Your task to perform on an android device: Open wifi settings Image 0: 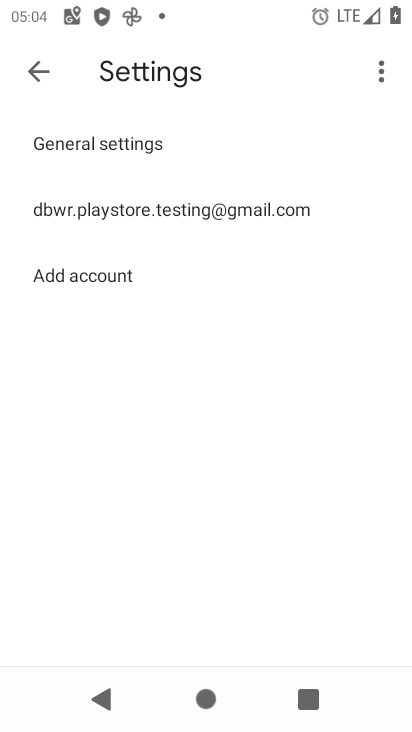
Step 0: press home button
Your task to perform on an android device: Open wifi settings Image 1: 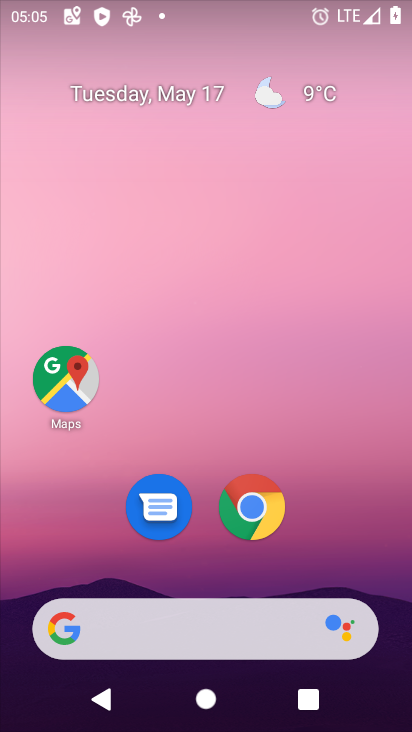
Step 1: drag from (366, 531) to (251, 30)
Your task to perform on an android device: Open wifi settings Image 2: 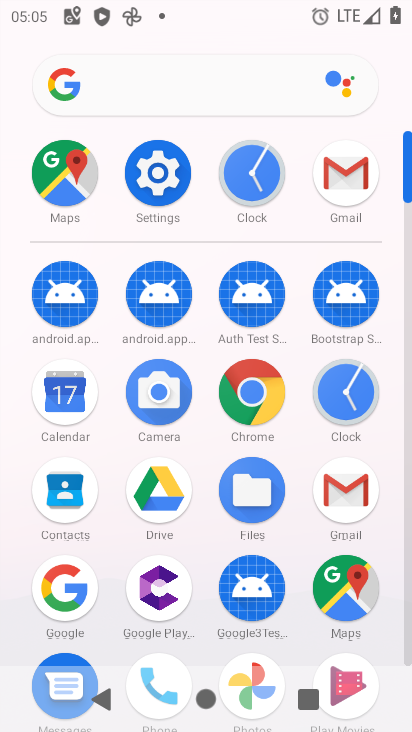
Step 2: click (155, 181)
Your task to perform on an android device: Open wifi settings Image 3: 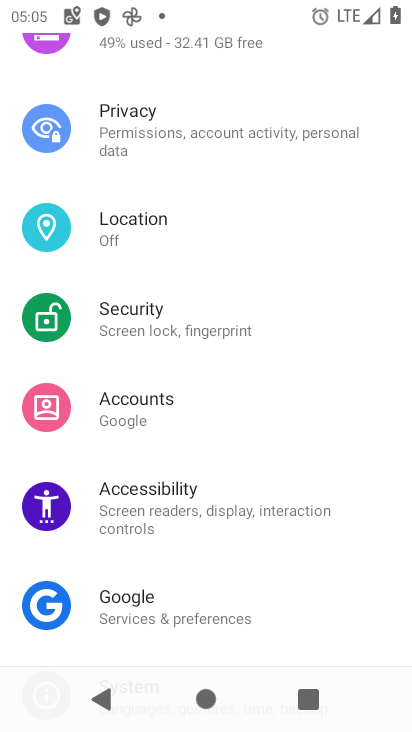
Step 3: drag from (253, 172) to (211, 616)
Your task to perform on an android device: Open wifi settings Image 4: 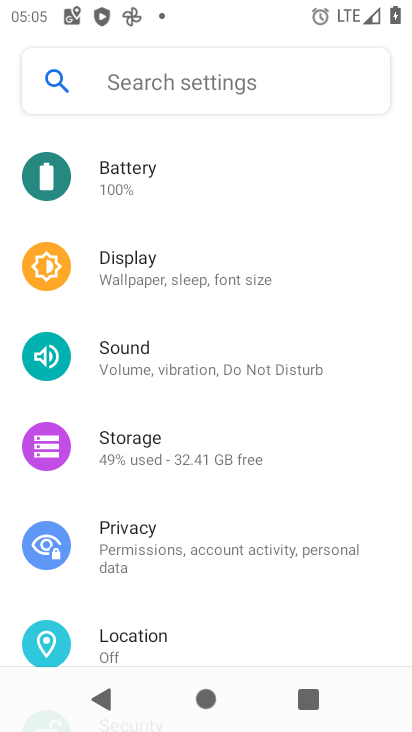
Step 4: drag from (226, 209) to (219, 652)
Your task to perform on an android device: Open wifi settings Image 5: 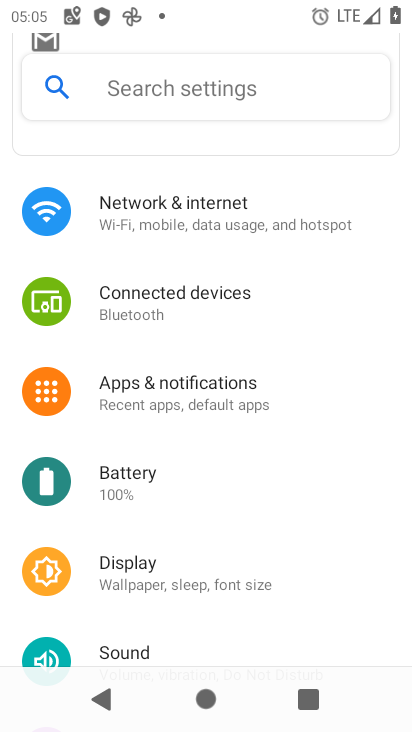
Step 5: click (206, 210)
Your task to perform on an android device: Open wifi settings Image 6: 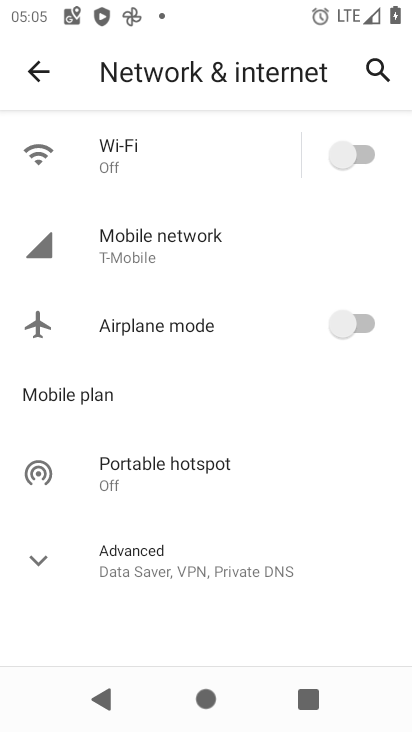
Step 6: click (212, 173)
Your task to perform on an android device: Open wifi settings Image 7: 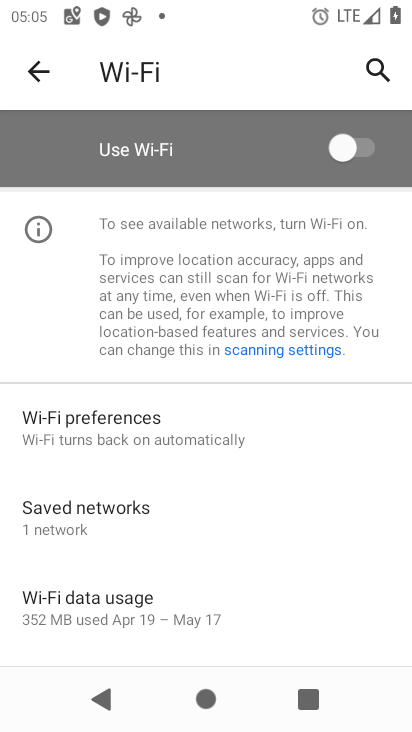
Step 7: task complete